Your task to perform on an android device: Open privacy settings Image 0: 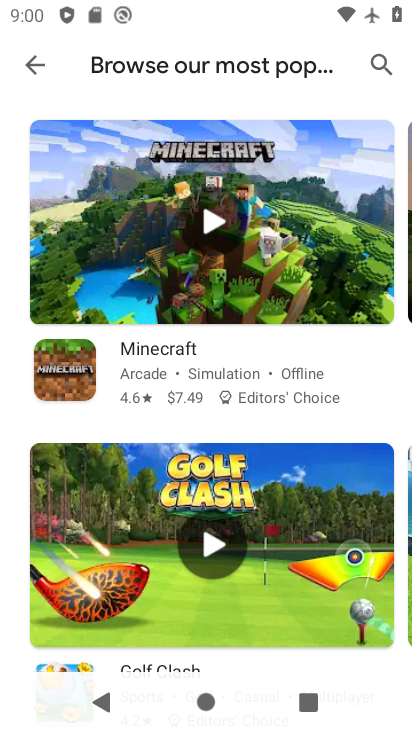
Step 0: press home button
Your task to perform on an android device: Open privacy settings Image 1: 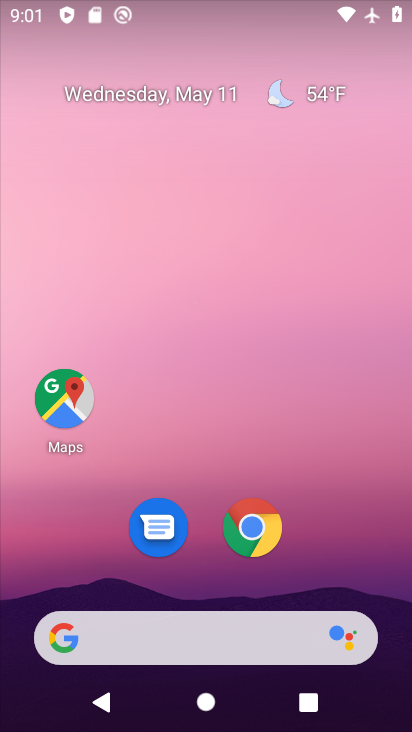
Step 1: drag from (322, 550) to (327, 225)
Your task to perform on an android device: Open privacy settings Image 2: 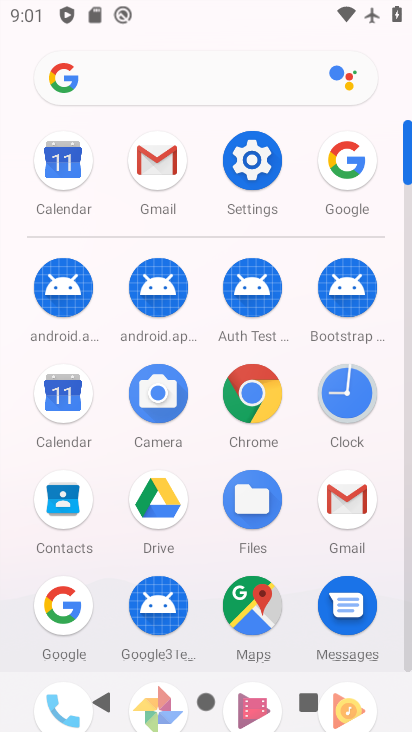
Step 2: click (239, 159)
Your task to perform on an android device: Open privacy settings Image 3: 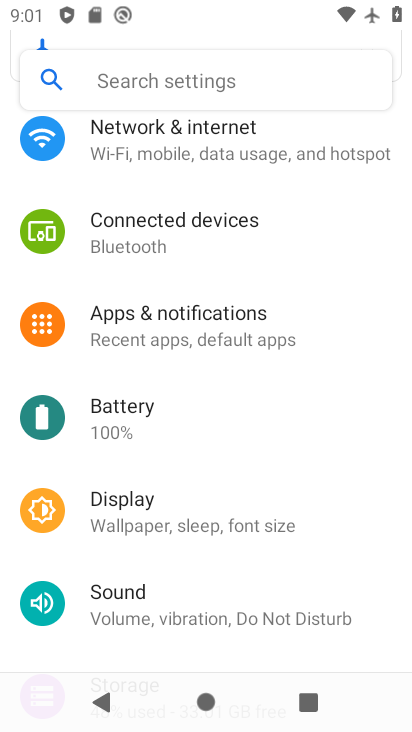
Step 3: drag from (165, 539) to (175, 260)
Your task to perform on an android device: Open privacy settings Image 4: 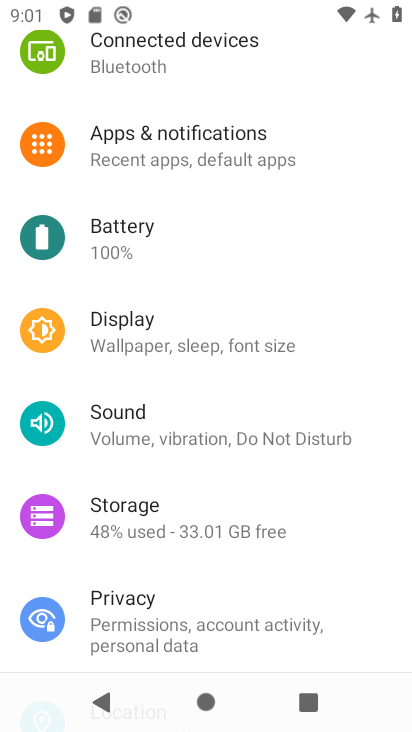
Step 4: click (154, 618)
Your task to perform on an android device: Open privacy settings Image 5: 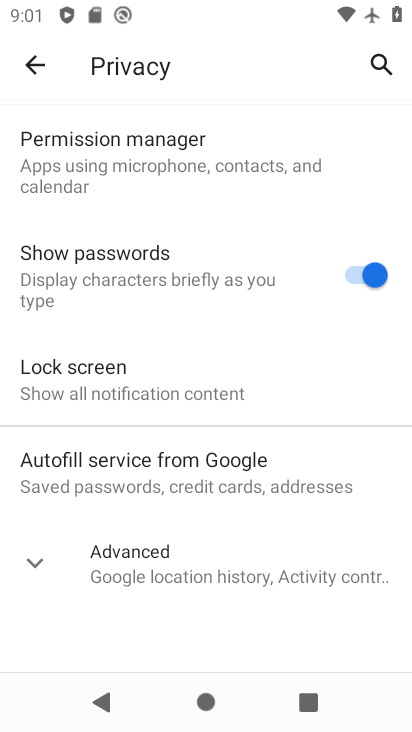
Step 5: task complete